Your task to perform on an android device: set the stopwatch Image 0: 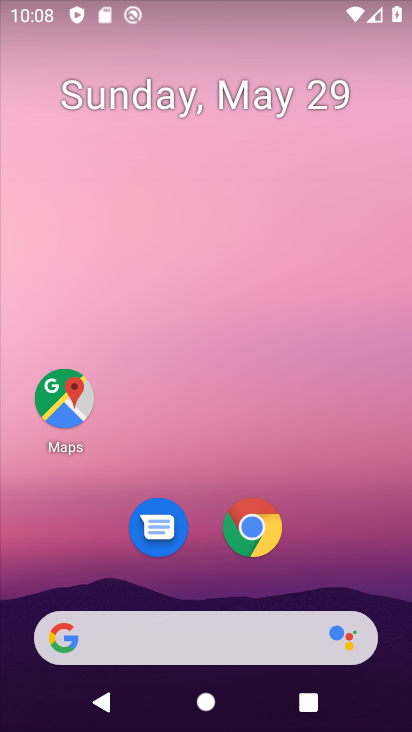
Step 0: drag from (337, 488) to (239, 75)
Your task to perform on an android device: set the stopwatch Image 1: 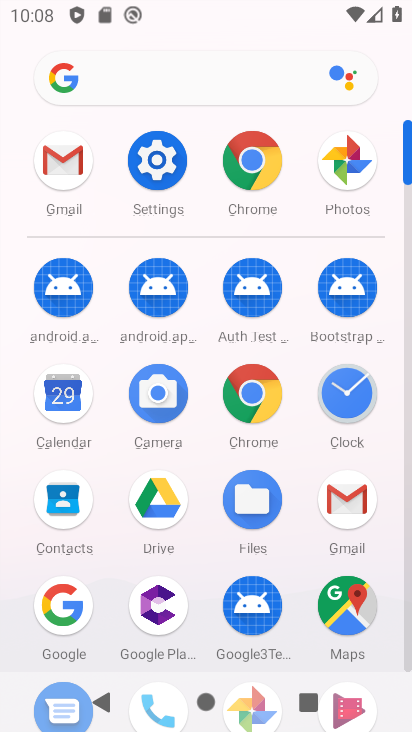
Step 1: click (350, 416)
Your task to perform on an android device: set the stopwatch Image 2: 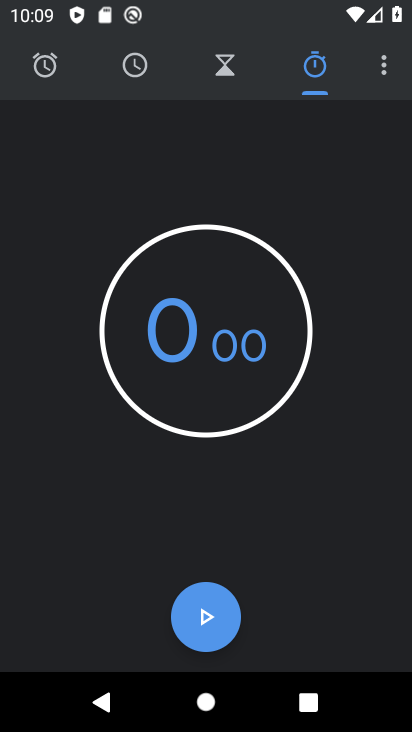
Step 2: click (215, 605)
Your task to perform on an android device: set the stopwatch Image 3: 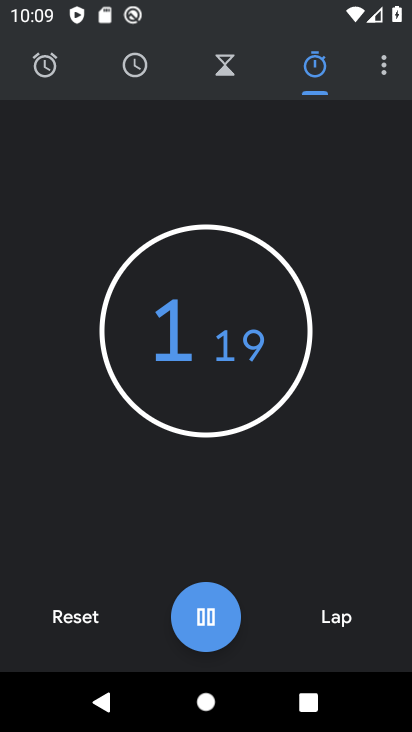
Step 3: click (215, 605)
Your task to perform on an android device: set the stopwatch Image 4: 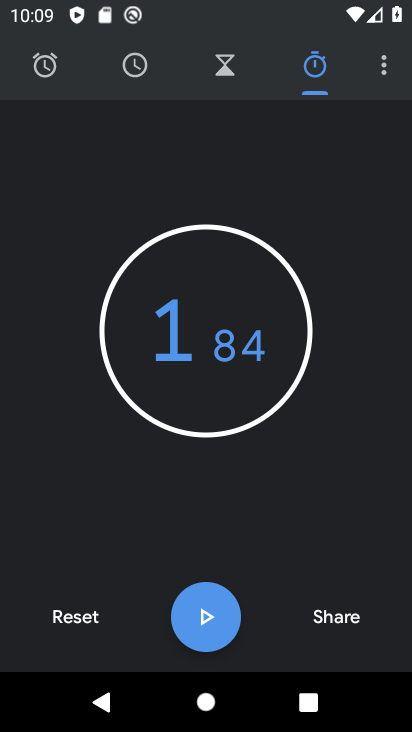
Step 4: task complete